Your task to perform on an android device: Open Google Image 0: 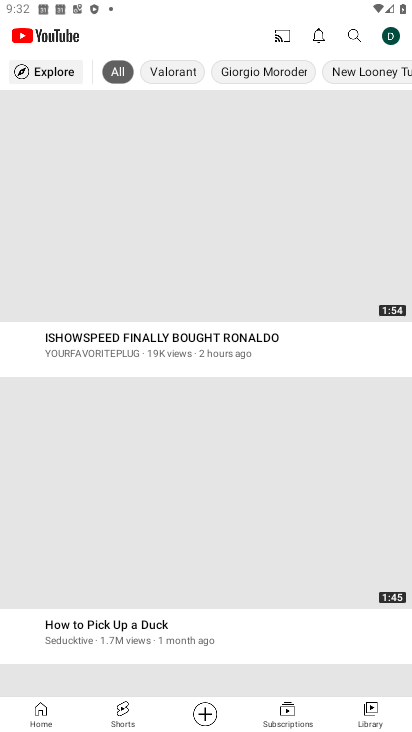
Step 0: drag from (212, 559) to (137, 10)
Your task to perform on an android device: Open Google Image 1: 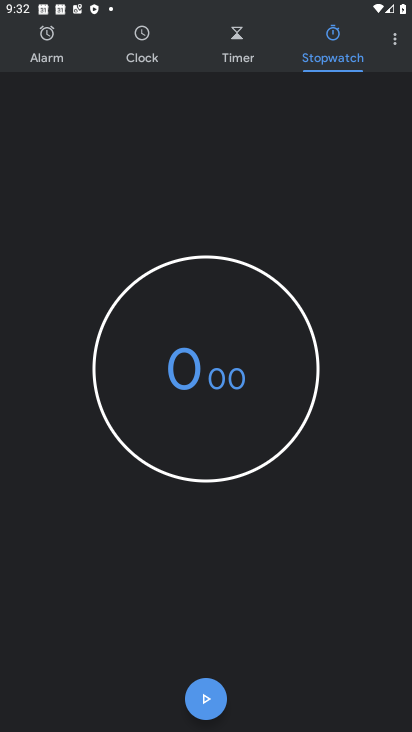
Step 1: press home button
Your task to perform on an android device: Open Google Image 2: 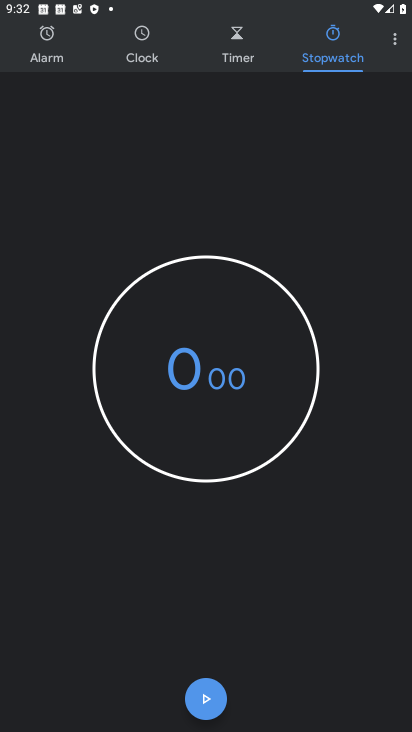
Step 2: drag from (137, 10) to (404, 494)
Your task to perform on an android device: Open Google Image 3: 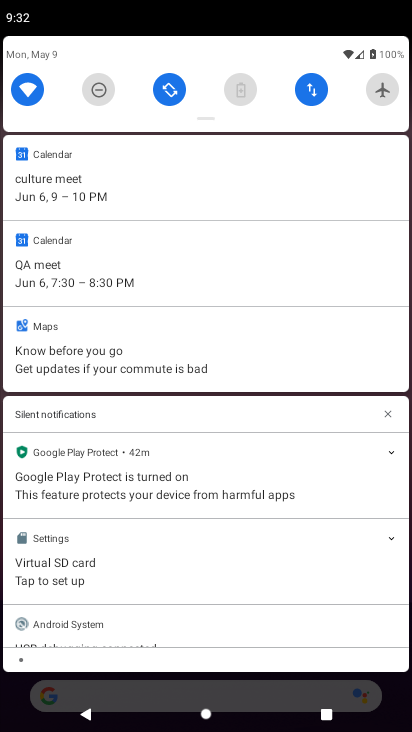
Step 3: click (225, 705)
Your task to perform on an android device: Open Google Image 4: 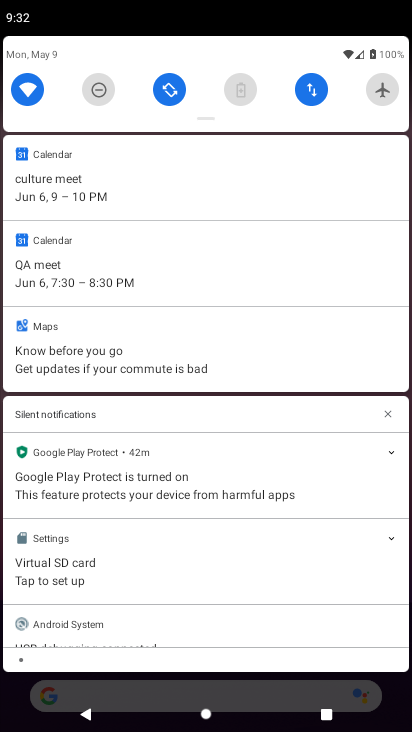
Step 4: click (224, 705)
Your task to perform on an android device: Open Google Image 5: 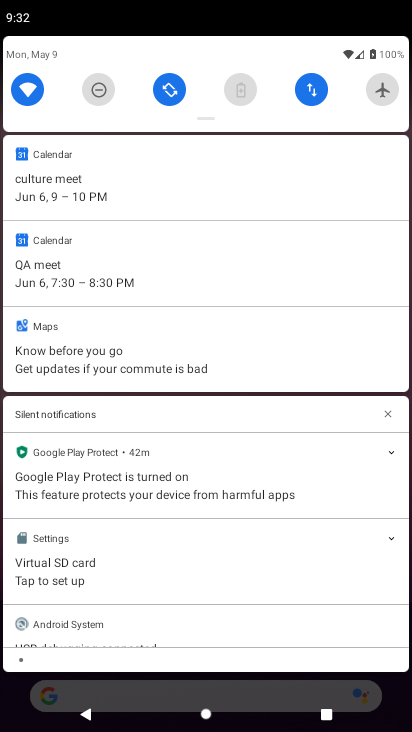
Step 5: drag from (229, 703) to (162, 3)
Your task to perform on an android device: Open Google Image 6: 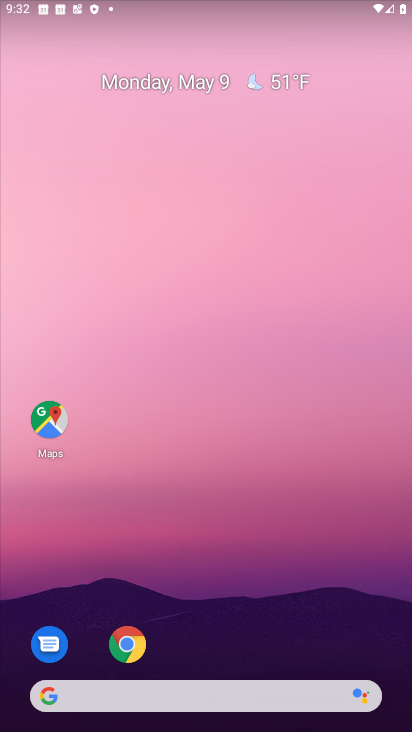
Step 6: click (163, 708)
Your task to perform on an android device: Open Google Image 7: 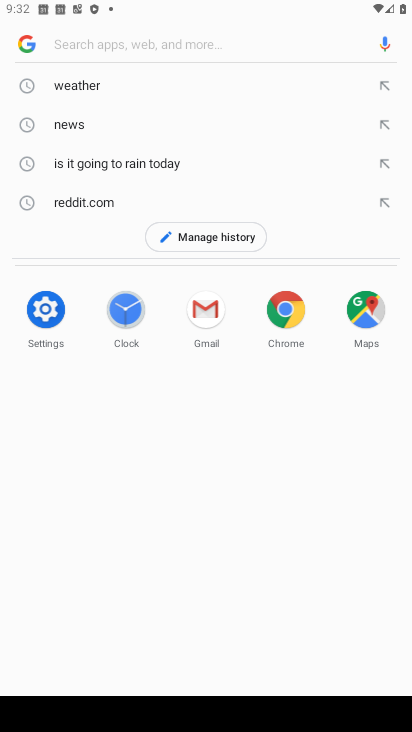
Step 7: task complete